Your task to perform on an android device: Show me recent news Image 0: 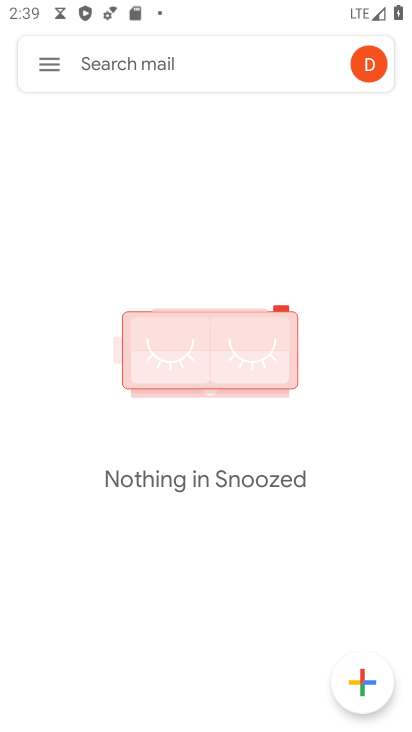
Step 0: press home button
Your task to perform on an android device: Show me recent news Image 1: 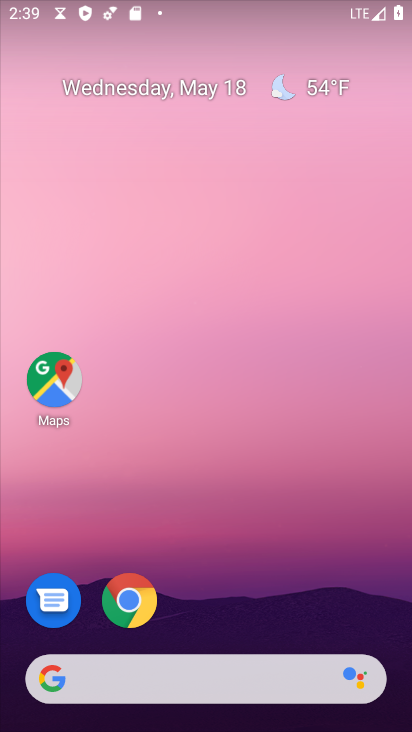
Step 1: click (54, 690)
Your task to perform on an android device: Show me recent news Image 2: 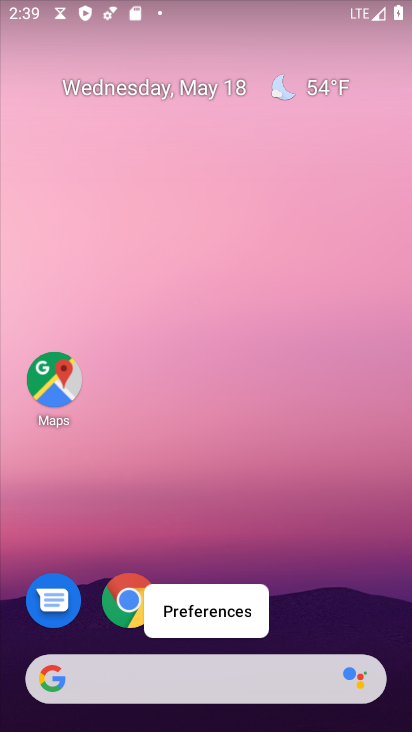
Step 2: click (57, 676)
Your task to perform on an android device: Show me recent news Image 3: 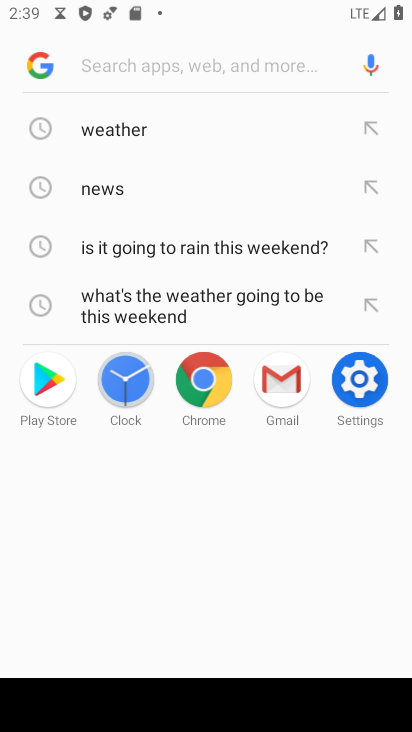
Step 3: click (102, 192)
Your task to perform on an android device: Show me recent news Image 4: 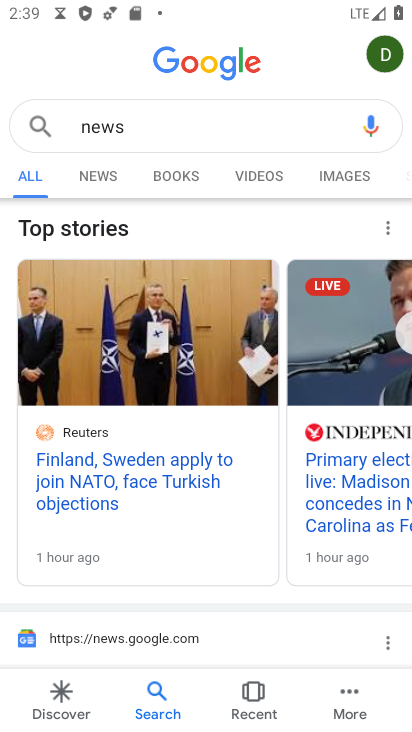
Step 4: click (96, 172)
Your task to perform on an android device: Show me recent news Image 5: 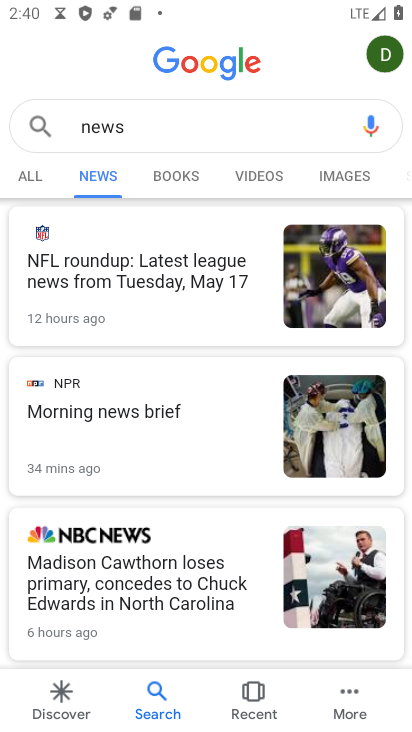
Step 5: task complete